Your task to perform on an android device: toggle airplane mode Image 0: 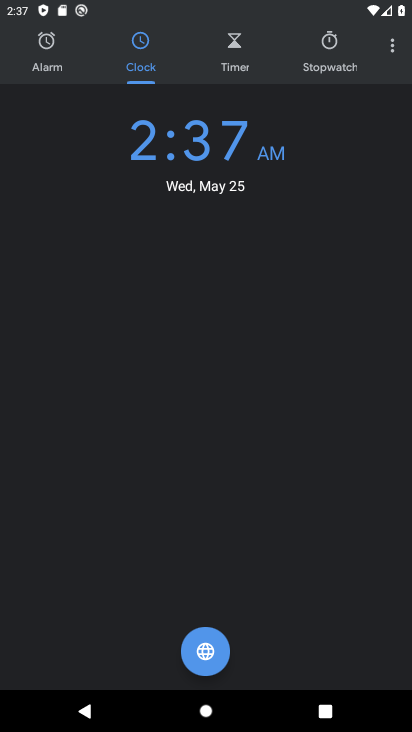
Step 0: press home button
Your task to perform on an android device: toggle airplane mode Image 1: 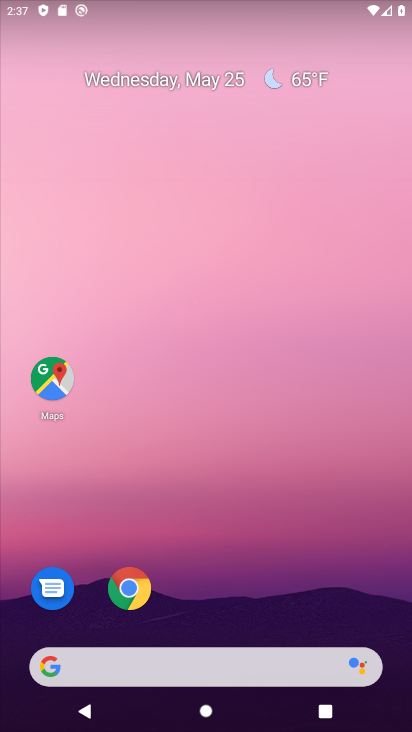
Step 1: drag from (226, 598) to (272, 152)
Your task to perform on an android device: toggle airplane mode Image 2: 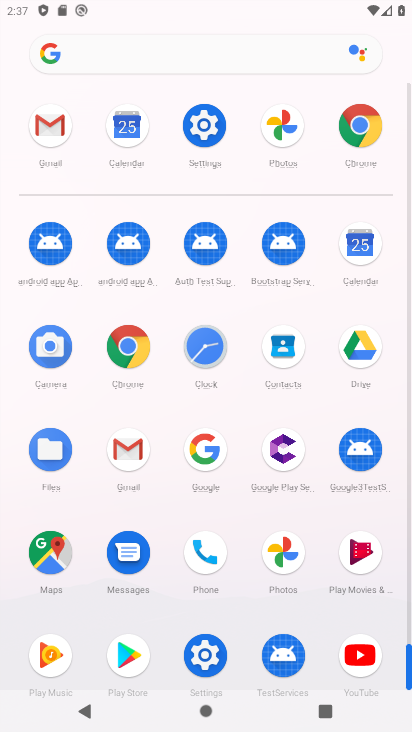
Step 2: click (203, 123)
Your task to perform on an android device: toggle airplane mode Image 3: 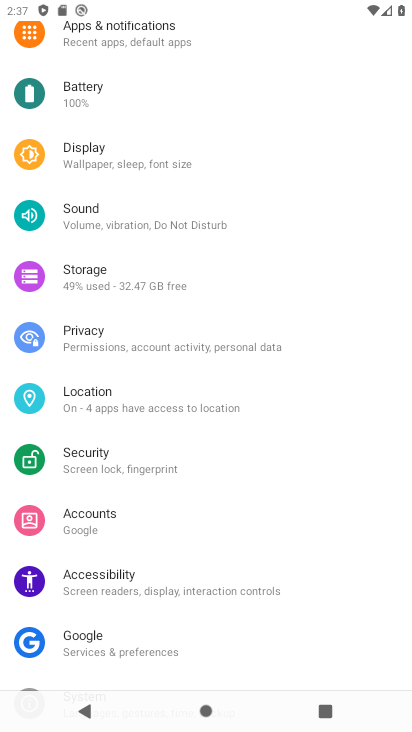
Step 3: drag from (181, 110) to (153, 716)
Your task to perform on an android device: toggle airplane mode Image 4: 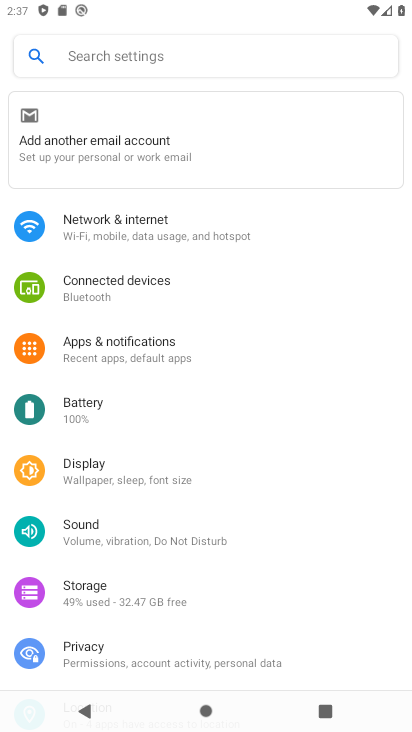
Step 4: click (185, 222)
Your task to perform on an android device: toggle airplane mode Image 5: 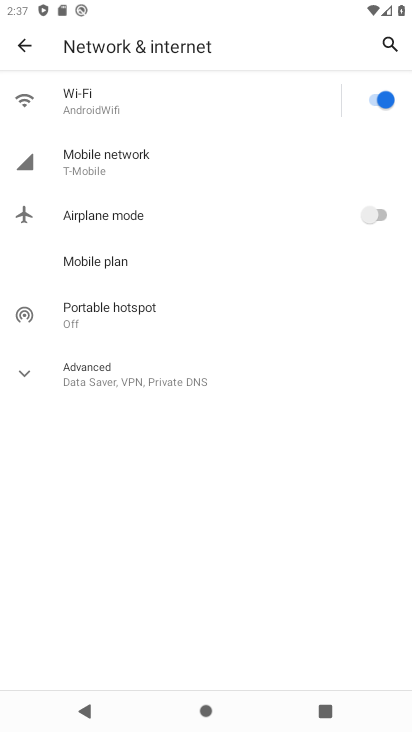
Step 5: click (384, 216)
Your task to perform on an android device: toggle airplane mode Image 6: 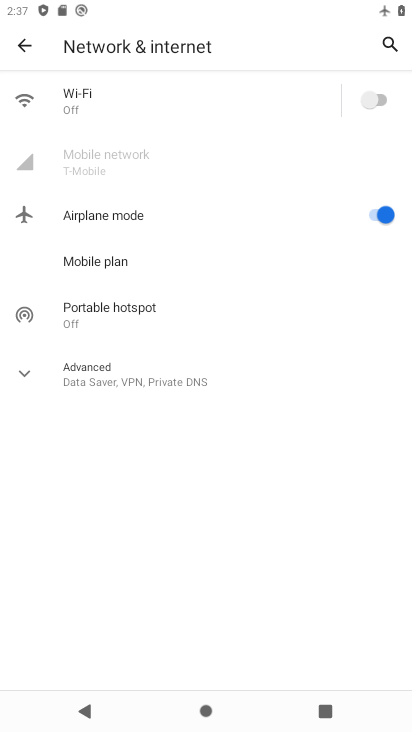
Step 6: task complete